Your task to perform on an android device: open app "Facebook" (install if not already installed) and go to login screen Image 0: 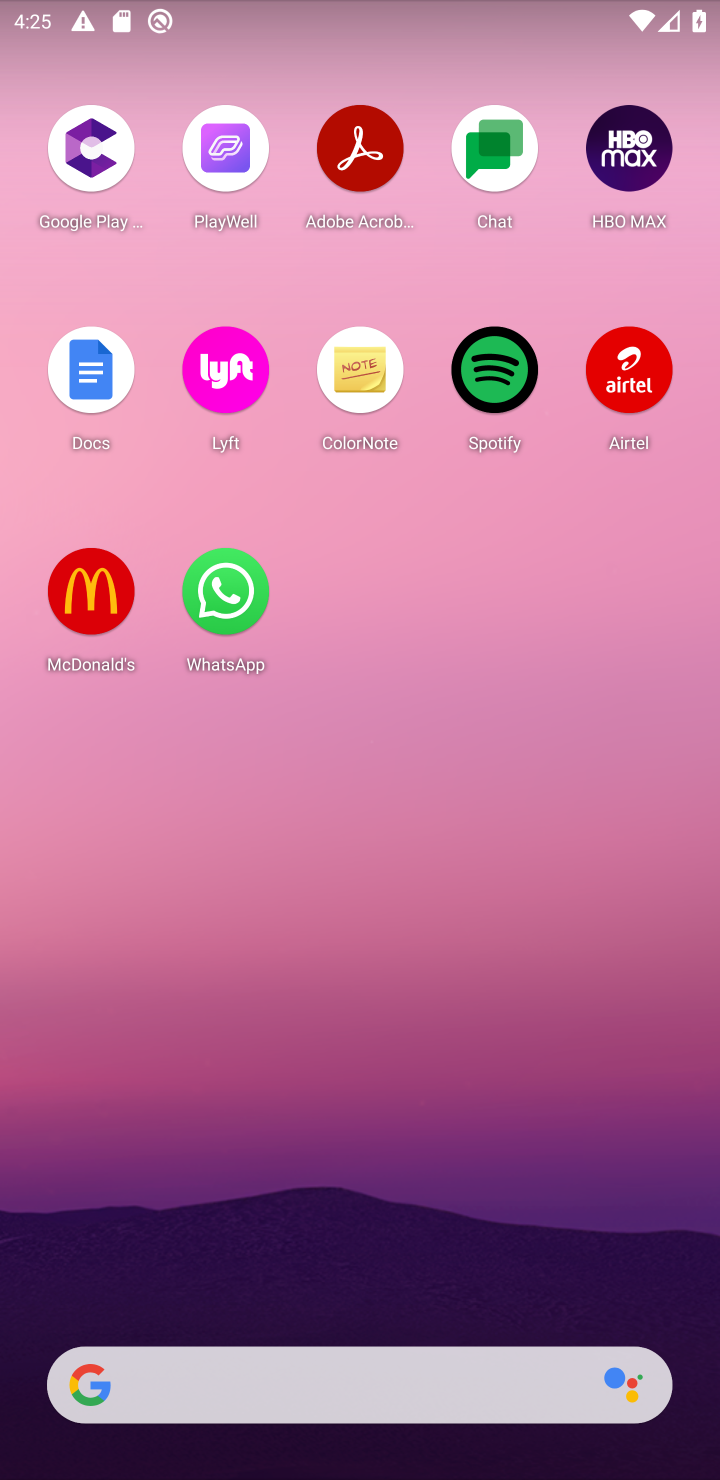
Step 0: press home button
Your task to perform on an android device: open app "Facebook" (install if not already installed) and go to login screen Image 1: 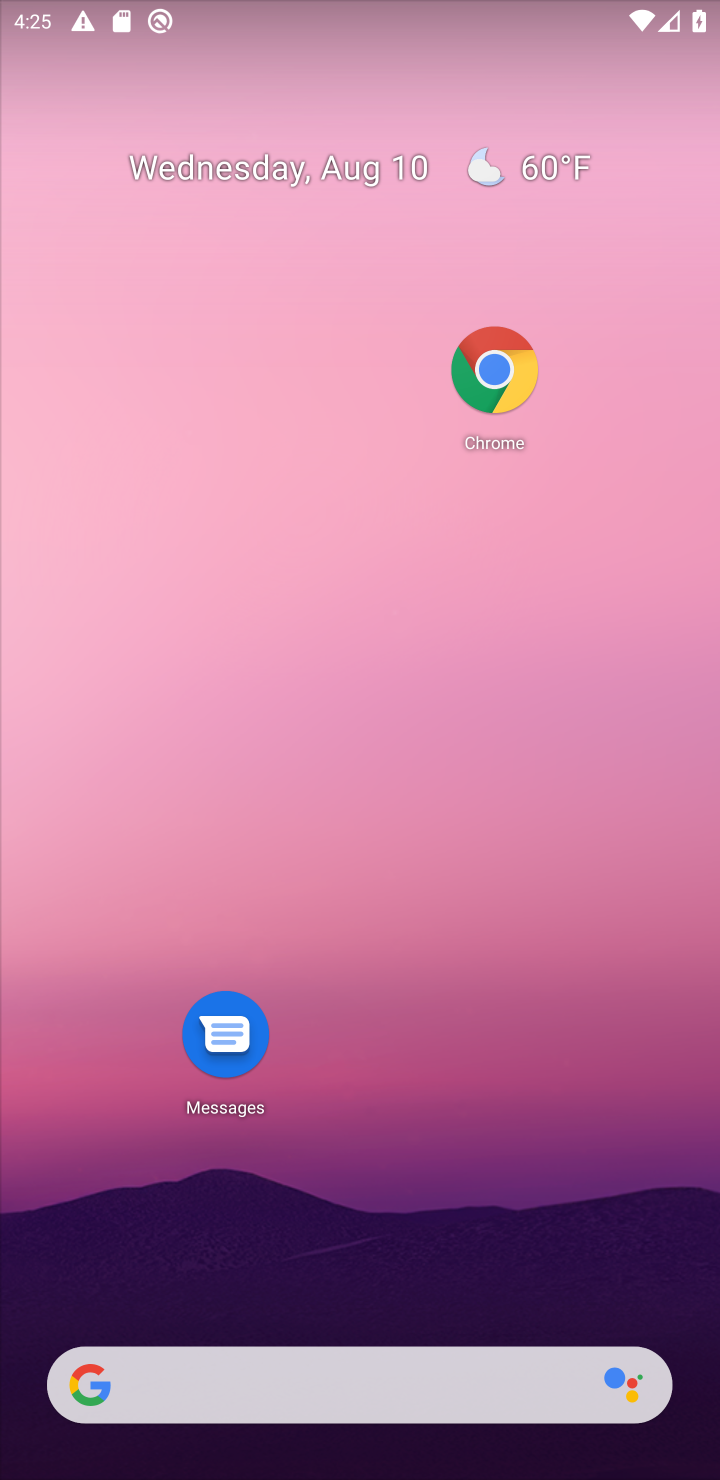
Step 1: drag from (374, 932) to (397, 427)
Your task to perform on an android device: open app "Facebook" (install if not already installed) and go to login screen Image 2: 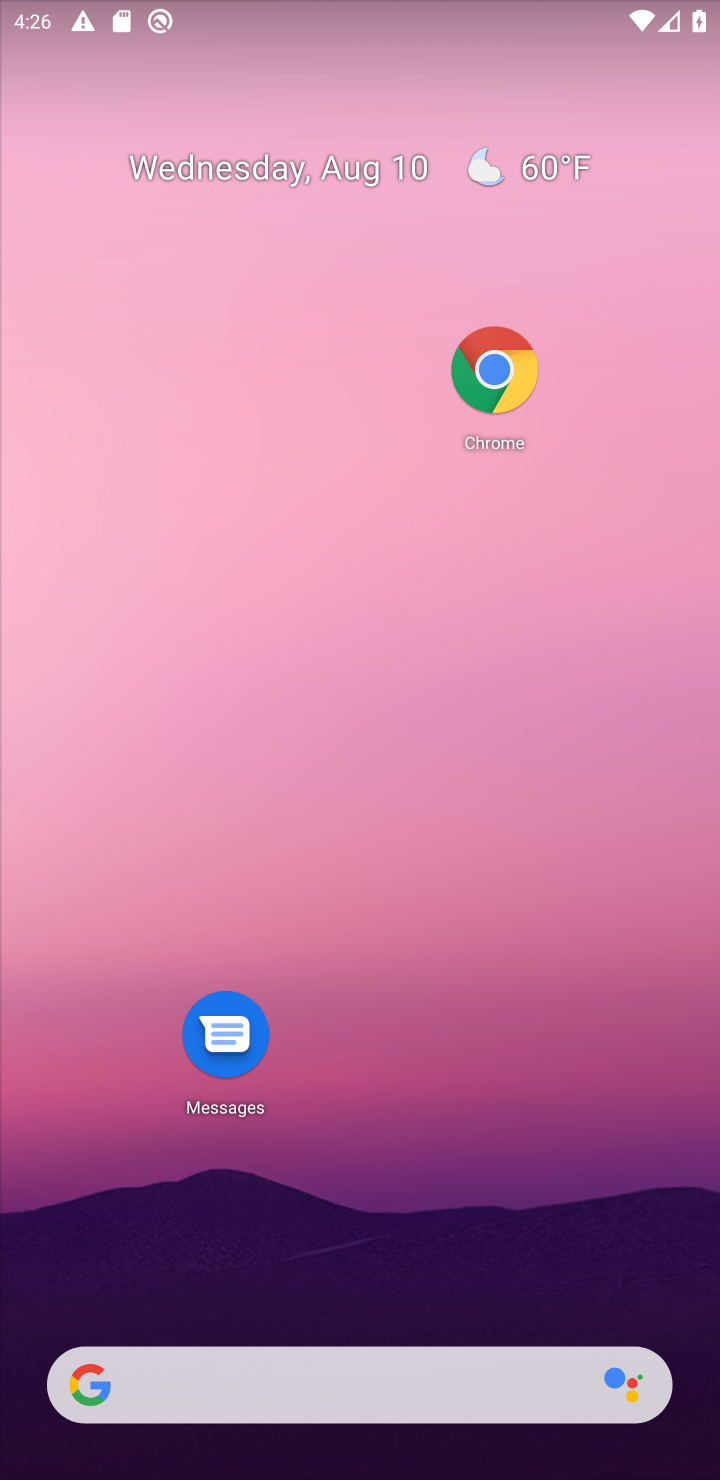
Step 2: drag from (333, 1149) to (363, 291)
Your task to perform on an android device: open app "Facebook" (install if not already installed) and go to login screen Image 3: 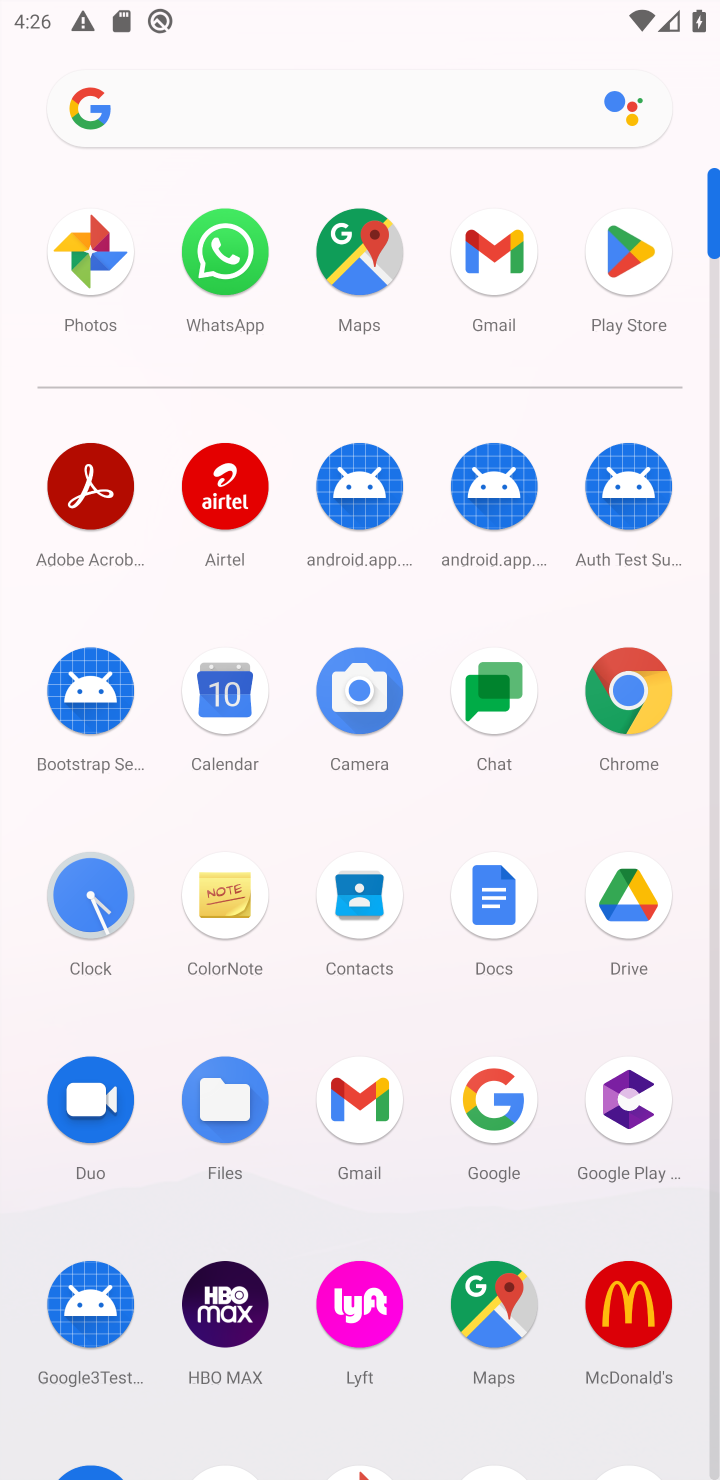
Step 3: click (634, 238)
Your task to perform on an android device: open app "Facebook" (install if not already installed) and go to login screen Image 4: 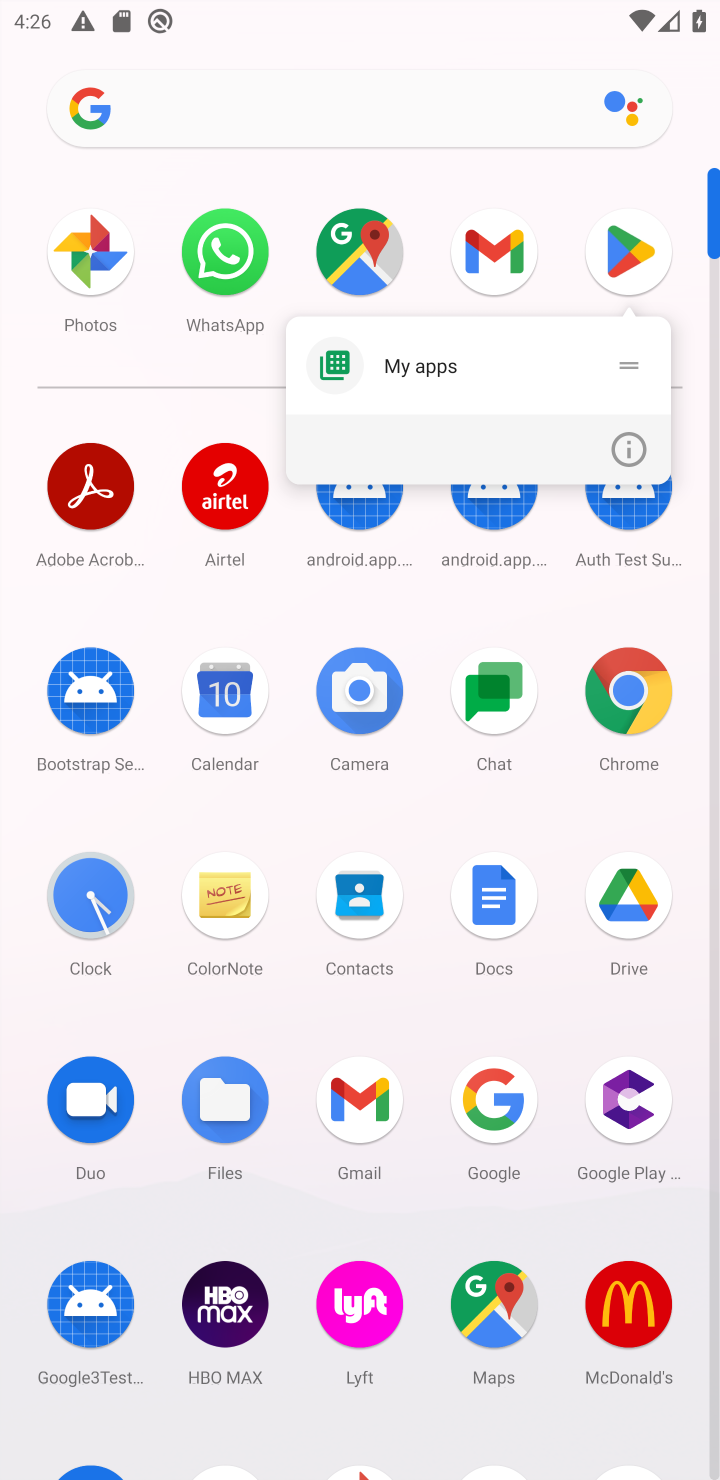
Step 4: click (606, 276)
Your task to perform on an android device: open app "Facebook" (install if not already installed) and go to login screen Image 5: 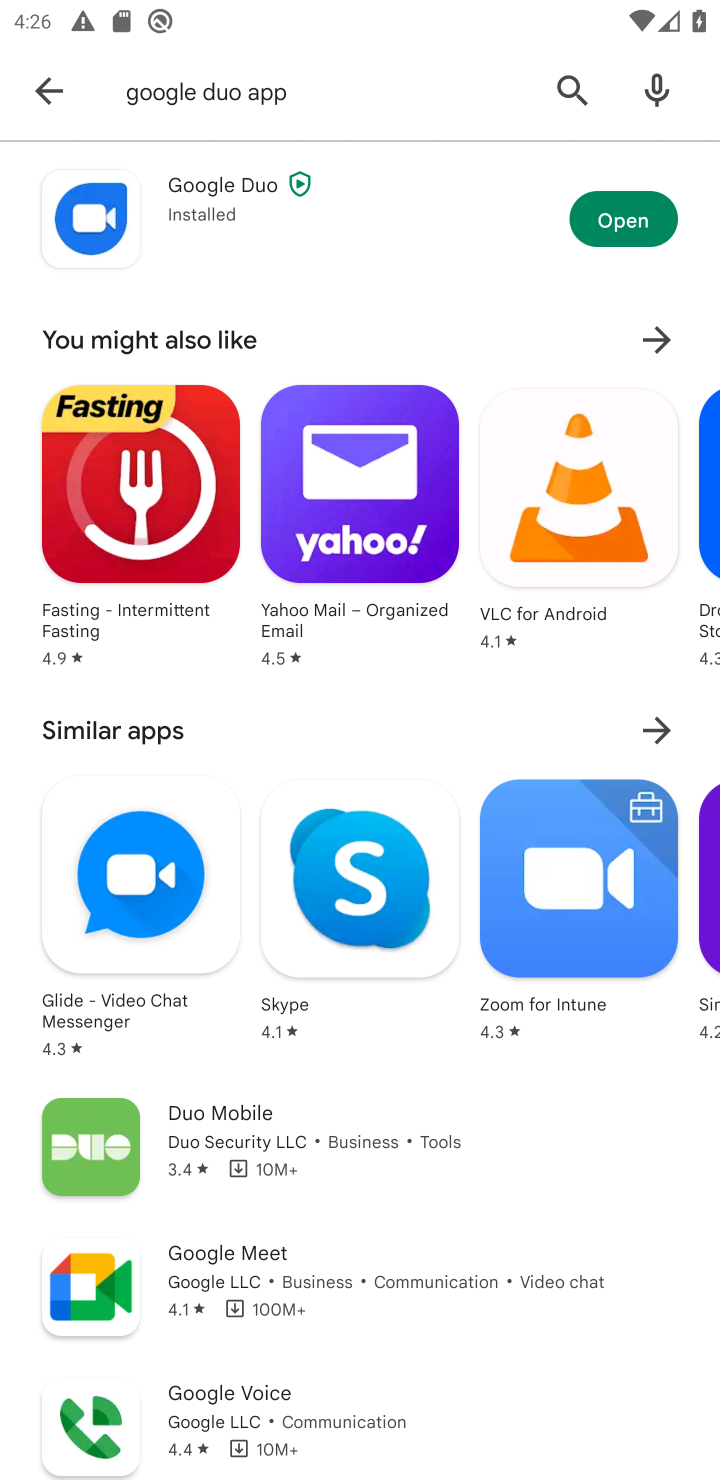
Step 5: click (59, 85)
Your task to perform on an android device: open app "Facebook" (install if not already installed) and go to login screen Image 6: 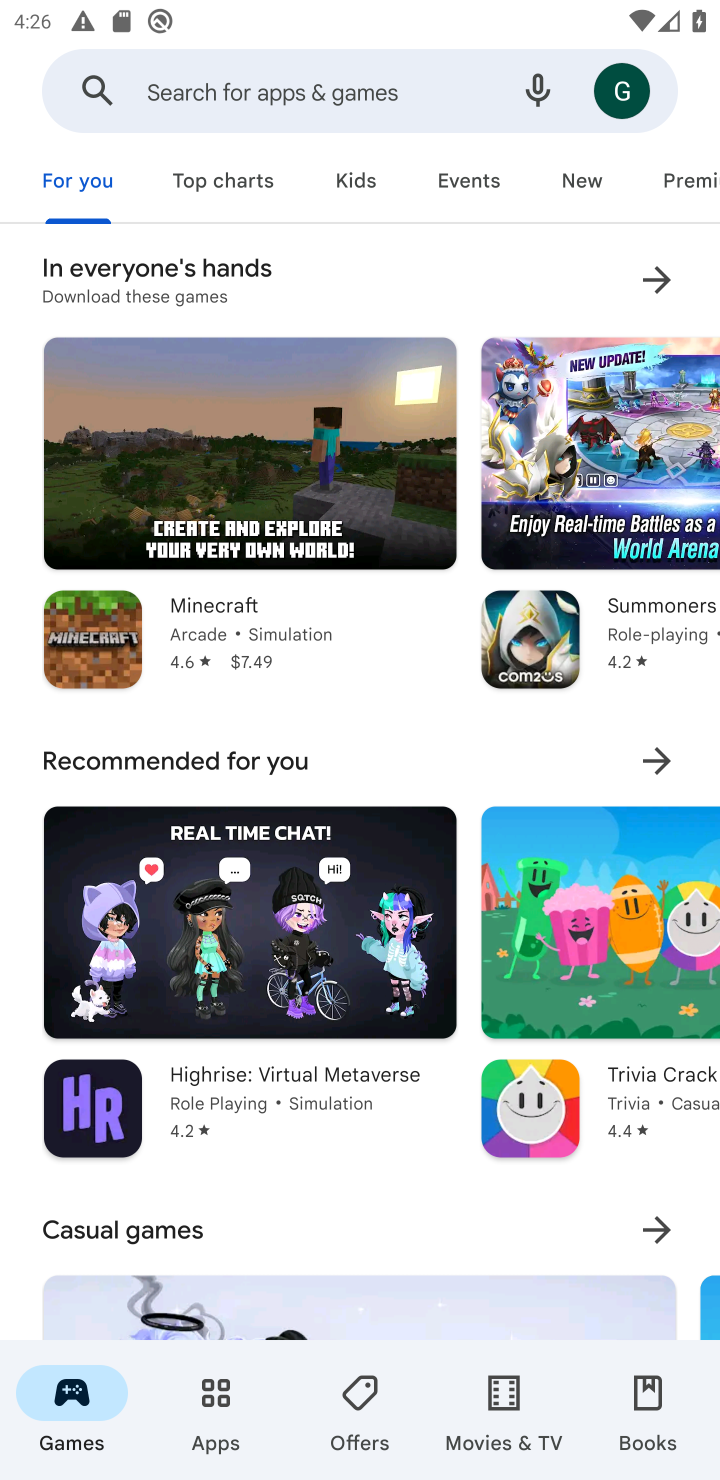
Step 6: click (342, 76)
Your task to perform on an android device: open app "Facebook" (install if not already installed) and go to login screen Image 7: 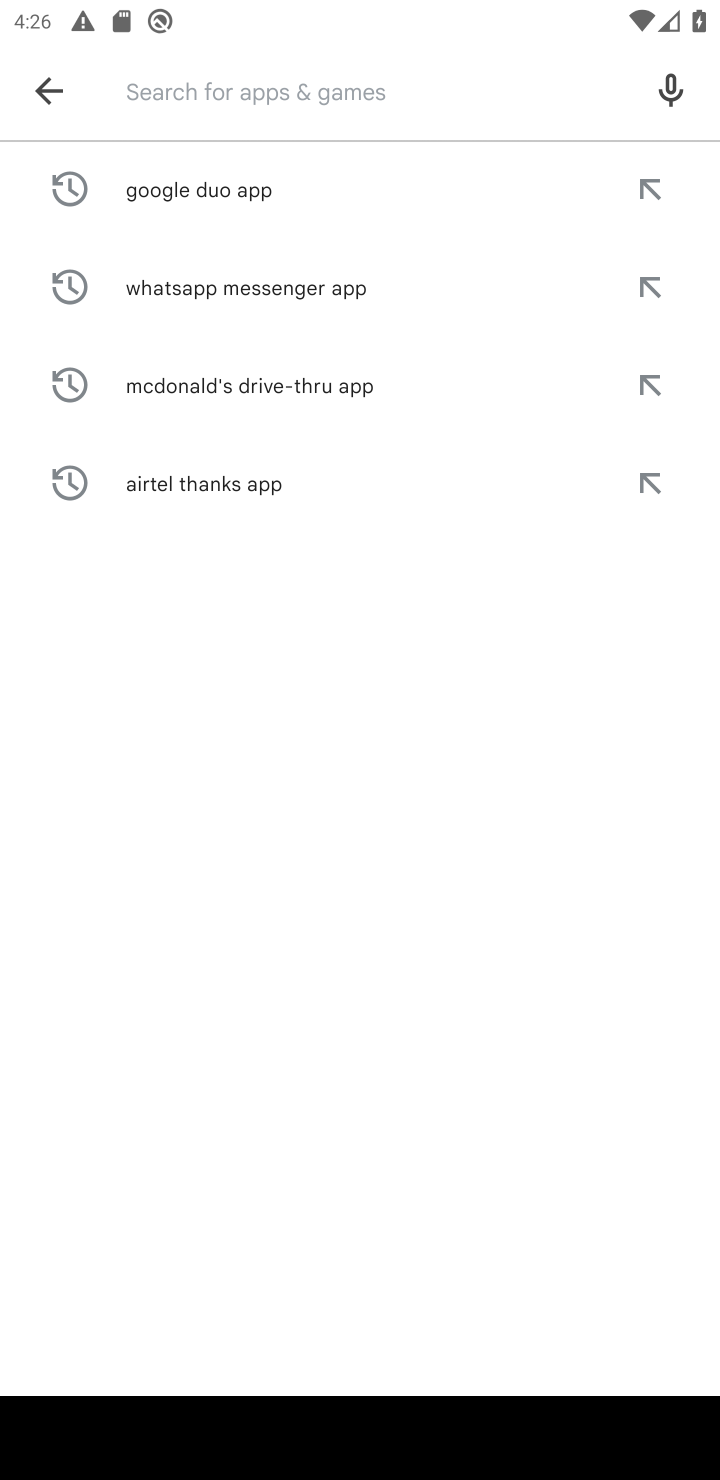
Step 7: type "facebook "
Your task to perform on an android device: open app "Facebook" (install if not already installed) and go to login screen Image 8: 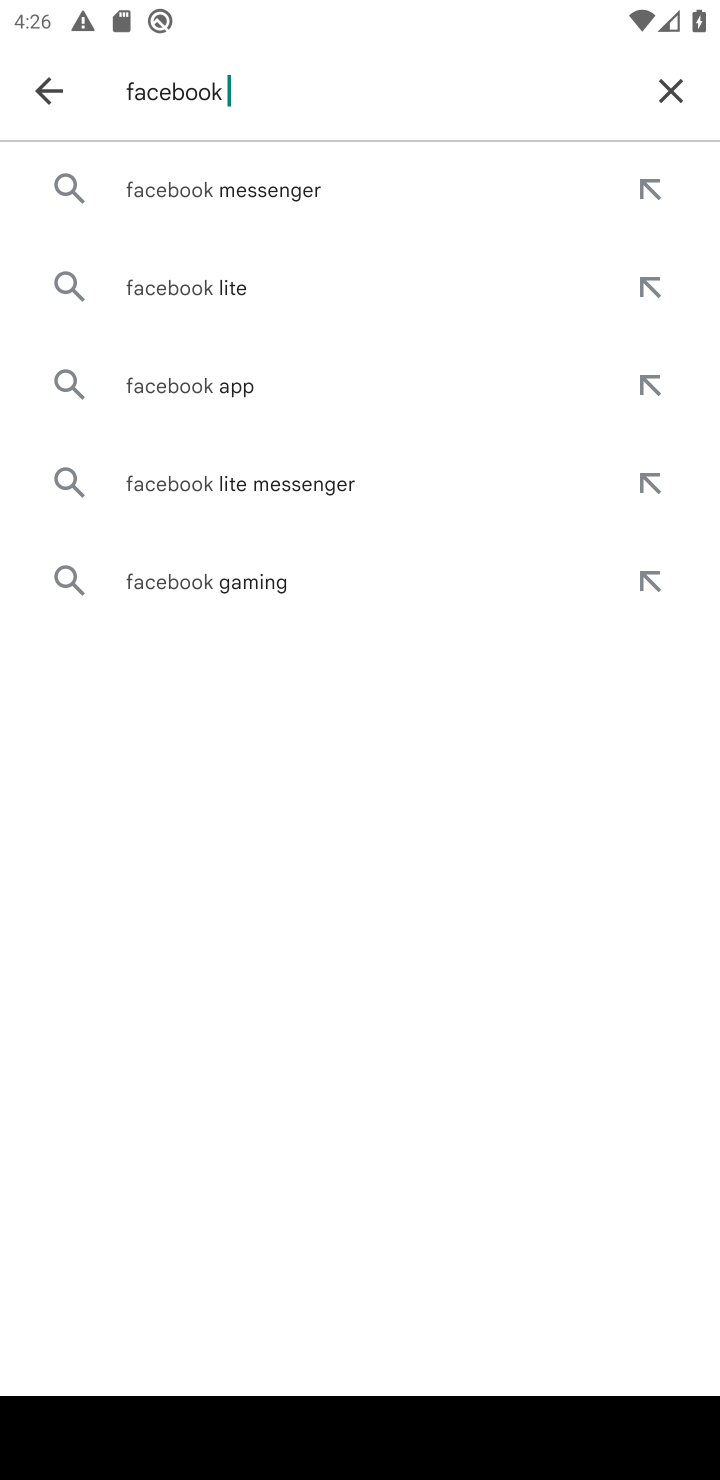
Step 8: click (199, 370)
Your task to perform on an android device: open app "Facebook" (install if not already installed) and go to login screen Image 9: 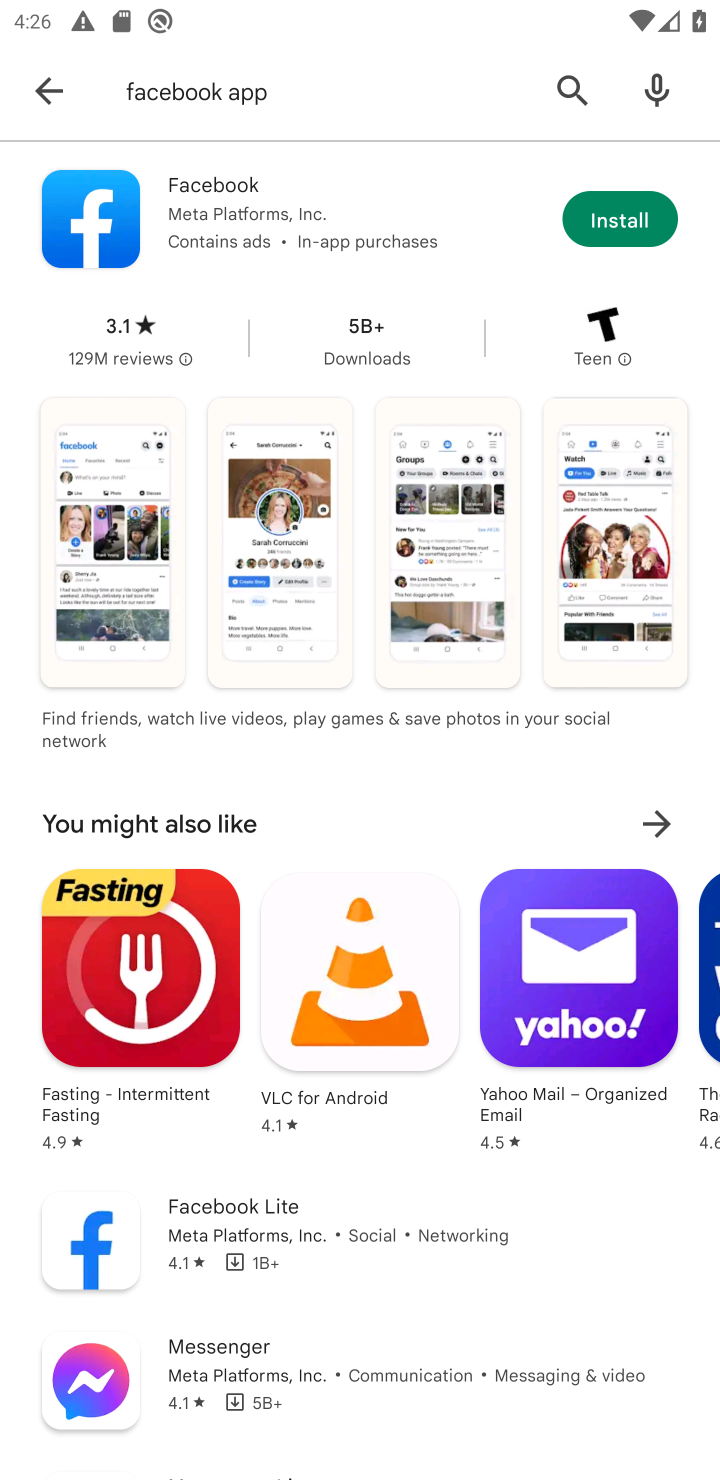
Step 9: click (598, 216)
Your task to perform on an android device: open app "Facebook" (install if not already installed) and go to login screen Image 10: 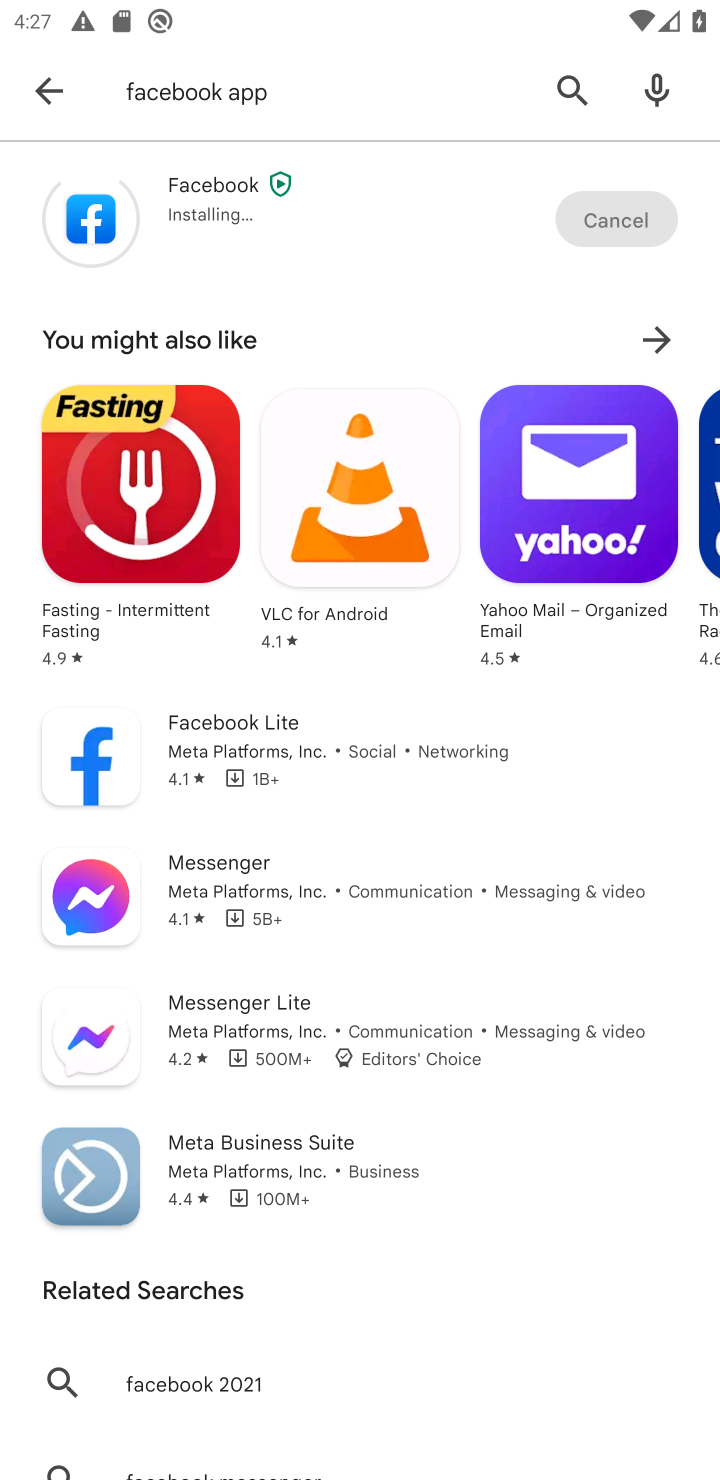
Step 10: task complete